Your task to perform on an android device: Open Amazon Image 0: 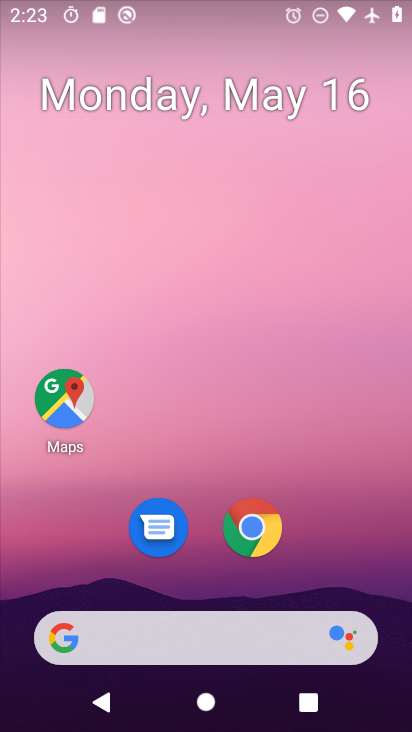
Step 0: press home button
Your task to perform on an android device: Open Amazon Image 1: 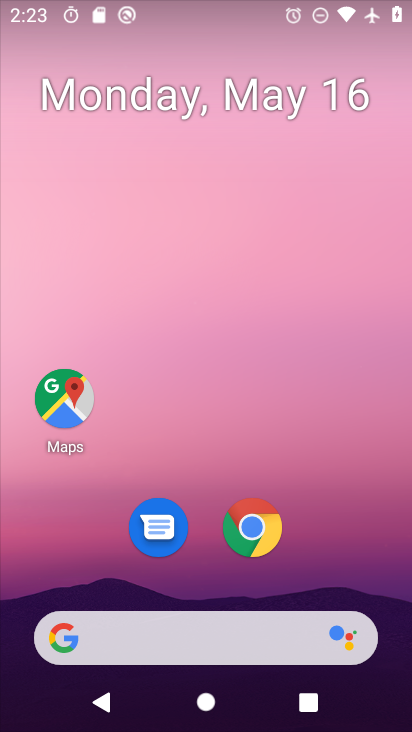
Step 1: click (242, 539)
Your task to perform on an android device: Open Amazon Image 2: 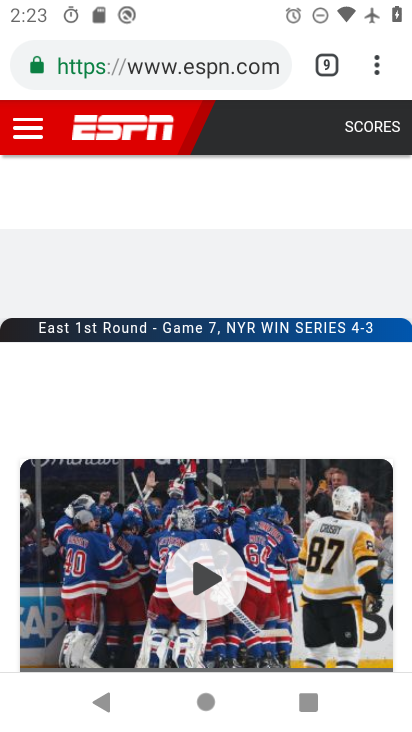
Step 2: drag from (376, 76) to (295, 125)
Your task to perform on an android device: Open Amazon Image 3: 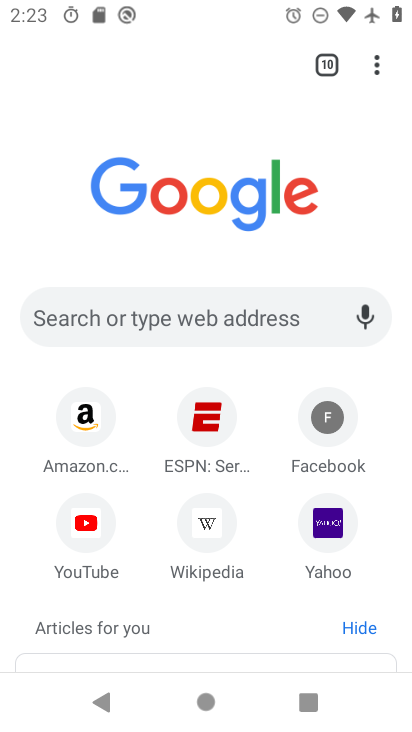
Step 3: click (82, 415)
Your task to perform on an android device: Open Amazon Image 4: 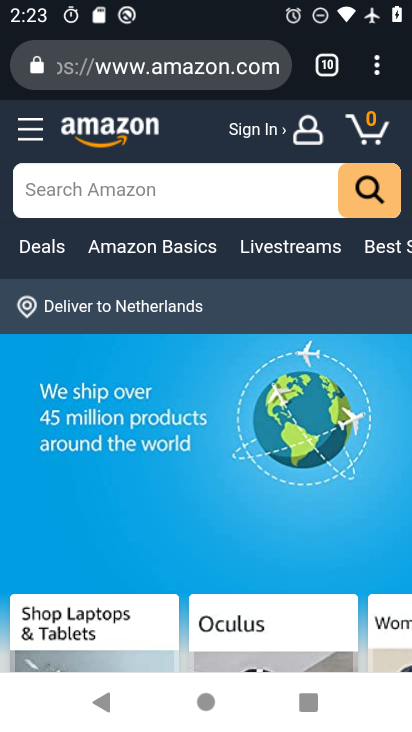
Step 4: task complete